Your task to perform on an android device: toggle notifications settings in the gmail app Image 0: 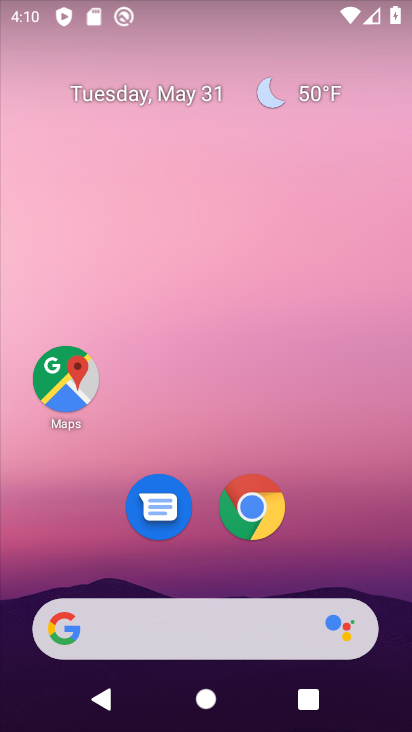
Step 0: drag from (206, 429) to (249, 4)
Your task to perform on an android device: toggle notifications settings in the gmail app Image 1: 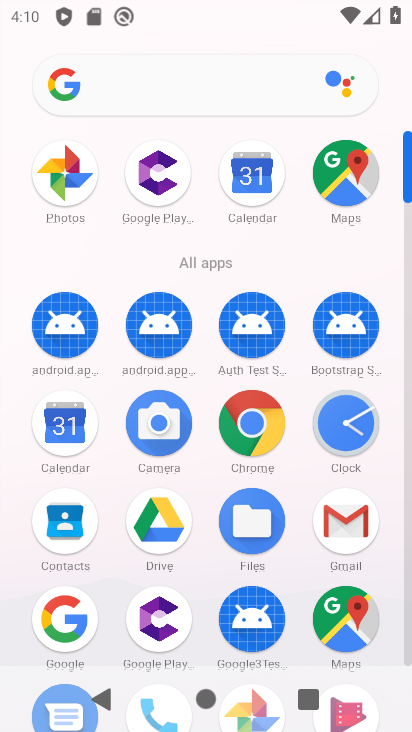
Step 1: click (356, 519)
Your task to perform on an android device: toggle notifications settings in the gmail app Image 2: 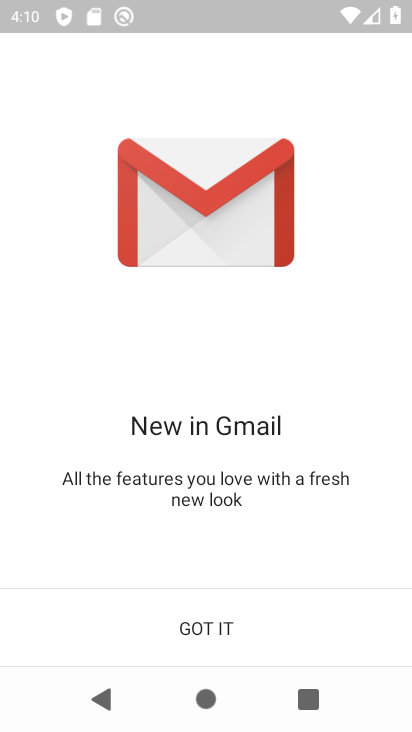
Step 2: click (289, 609)
Your task to perform on an android device: toggle notifications settings in the gmail app Image 3: 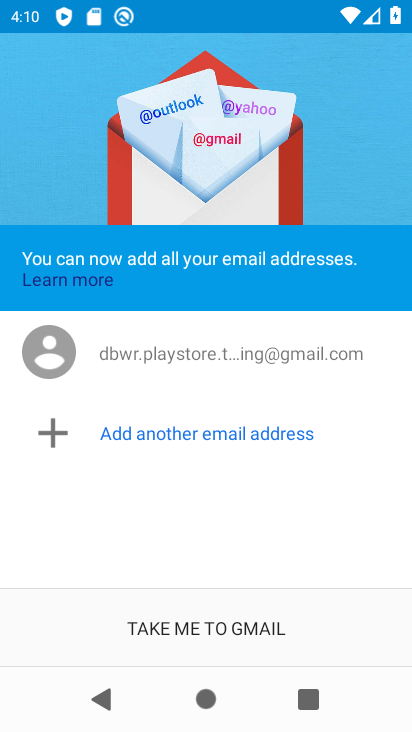
Step 3: click (295, 615)
Your task to perform on an android device: toggle notifications settings in the gmail app Image 4: 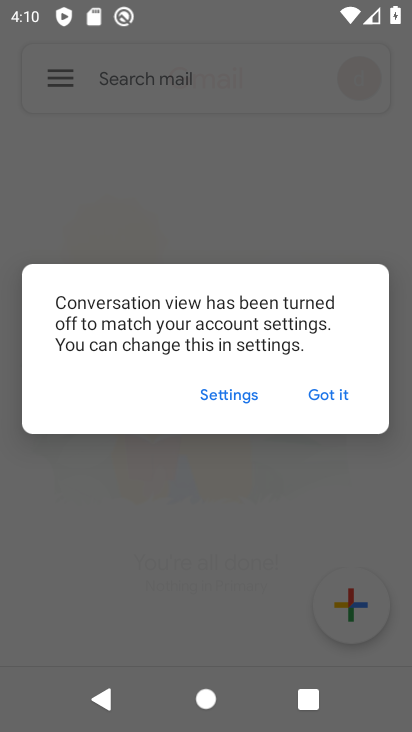
Step 4: click (334, 390)
Your task to perform on an android device: toggle notifications settings in the gmail app Image 5: 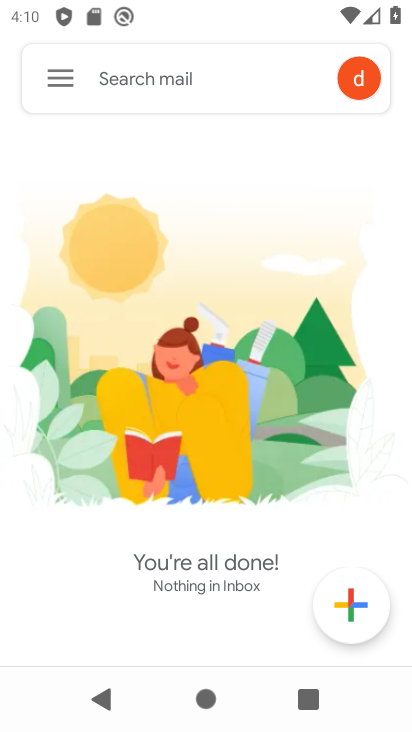
Step 5: click (66, 82)
Your task to perform on an android device: toggle notifications settings in the gmail app Image 6: 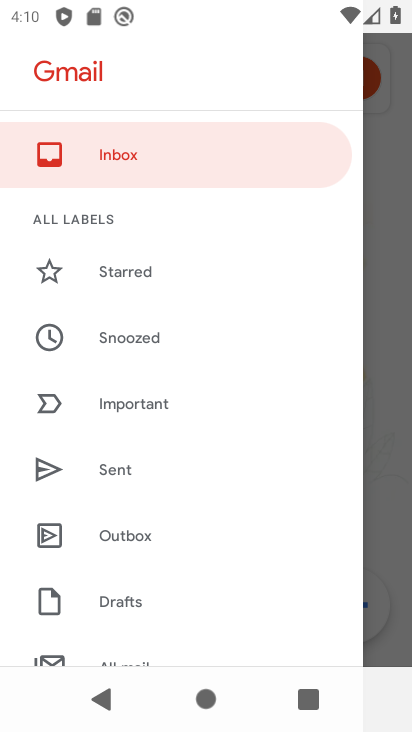
Step 6: drag from (216, 518) to (178, 163)
Your task to perform on an android device: toggle notifications settings in the gmail app Image 7: 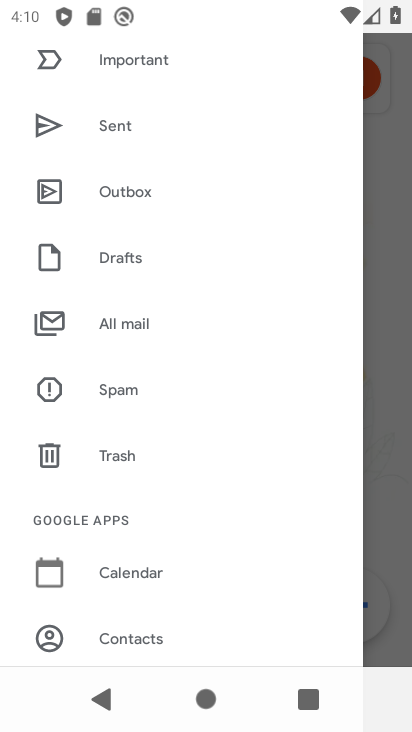
Step 7: drag from (189, 463) to (177, 279)
Your task to perform on an android device: toggle notifications settings in the gmail app Image 8: 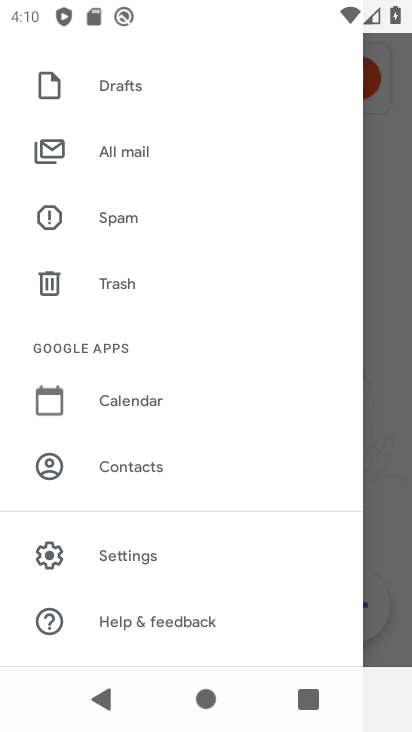
Step 8: click (164, 545)
Your task to perform on an android device: toggle notifications settings in the gmail app Image 9: 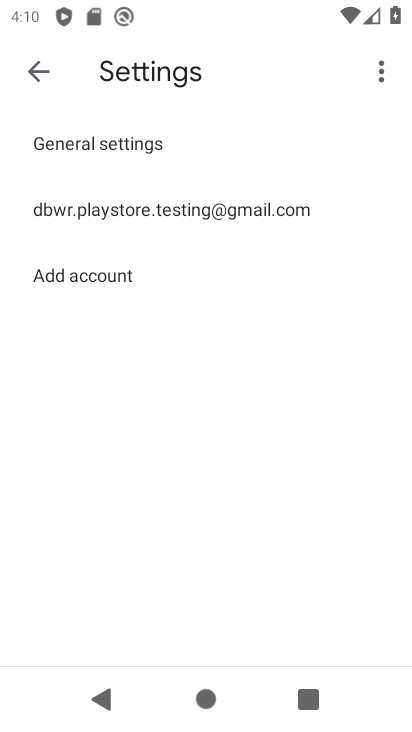
Step 9: click (192, 213)
Your task to perform on an android device: toggle notifications settings in the gmail app Image 10: 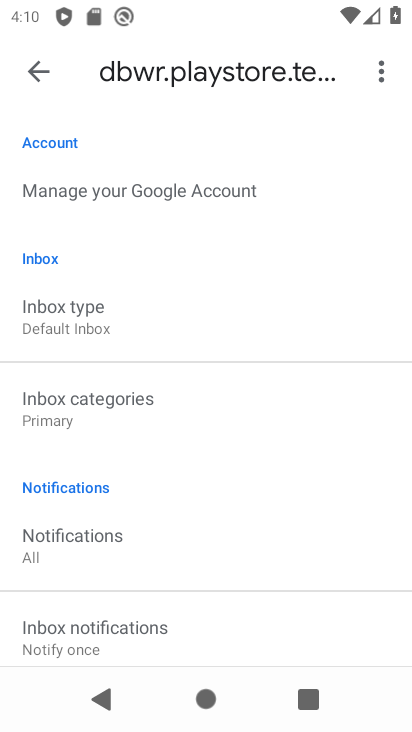
Step 10: drag from (209, 527) to (220, 121)
Your task to perform on an android device: toggle notifications settings in the gmail app Image 11: 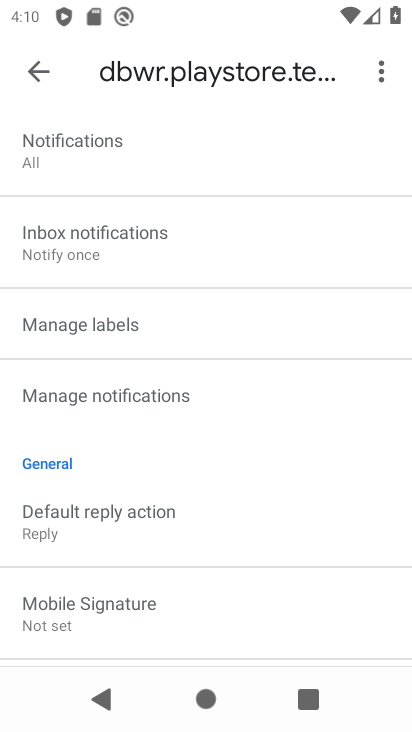
Step 11: click (202, 390)
Your task to perform on an android device: toggle notifications settings in the gmail app Image 12: 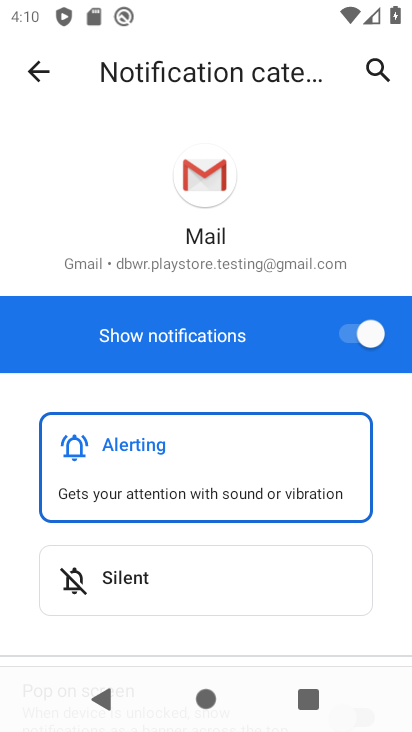
Step 12: click (354, 332)
Your task to perform on an android device: toggle notifications settings in the gmail app Image 13: 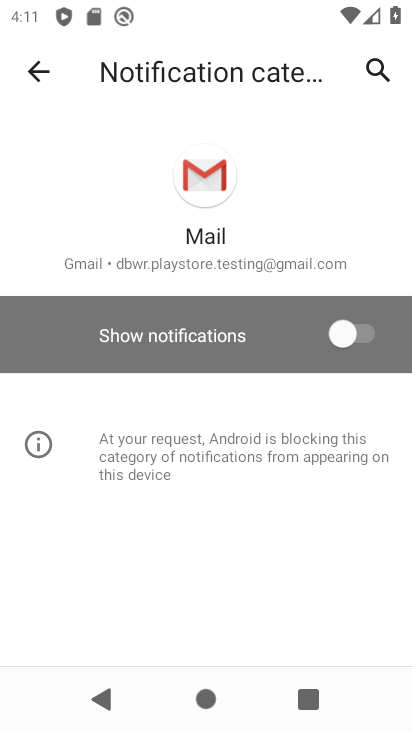
Step 13: task complete